Your task to perform on an android device: Open privacy settings Image 0: 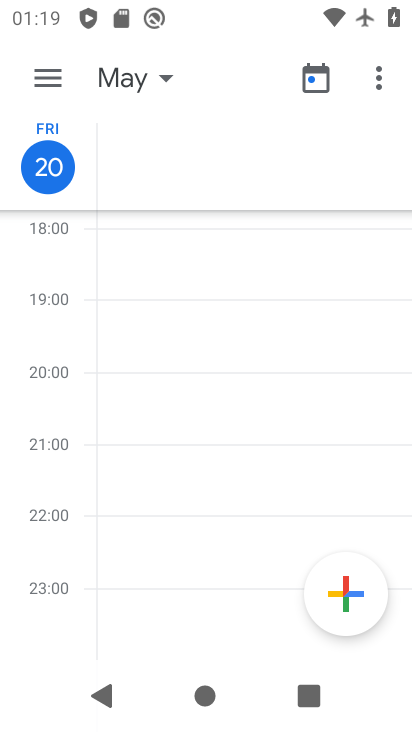
Step 0: press back button
Your task to perform on an android device: Open privacy settings Image 1: 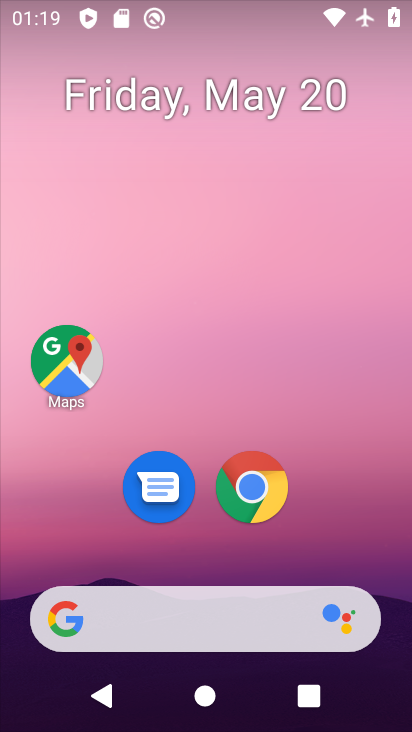
Step 1: drag from (336, 505) to (267, 2)
Your task to perform on an android device: Open privacy settings Image 2: 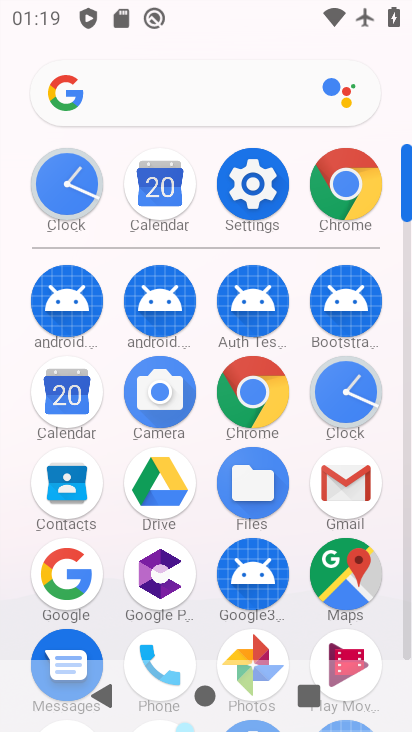
Step 2: drag from (1, 549) to (16, 203)
Your task to perform on an android device: Open privacy settings Image 3: 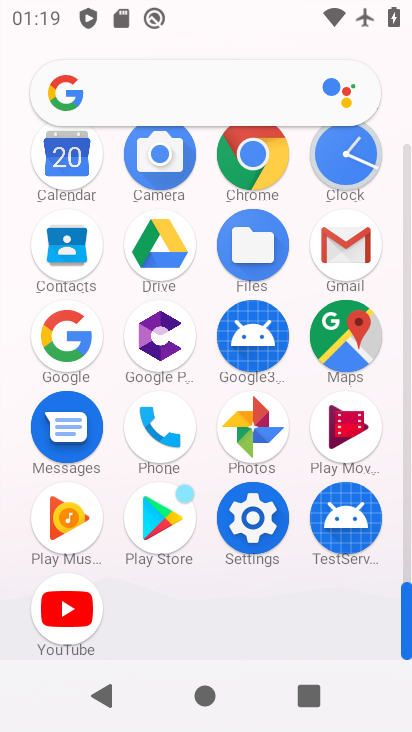
Step 3: click (246, 517)
Your task to perform on an android device: Open privacy settings Image 4: 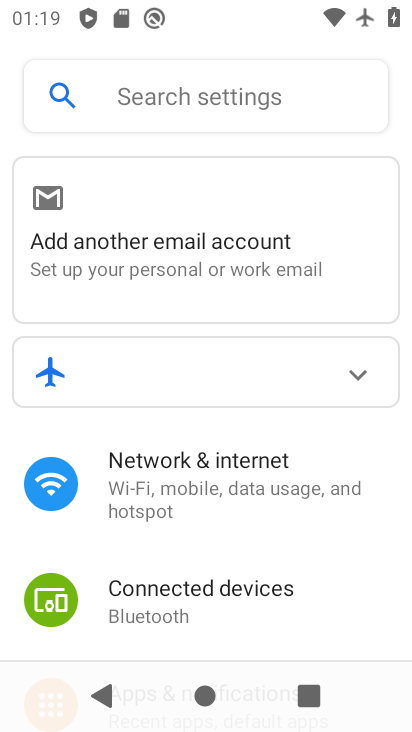
Step 4: drag from (346, 572) to (329, 165)
Your task to perform on an android device: Open privacy settings Image 5: 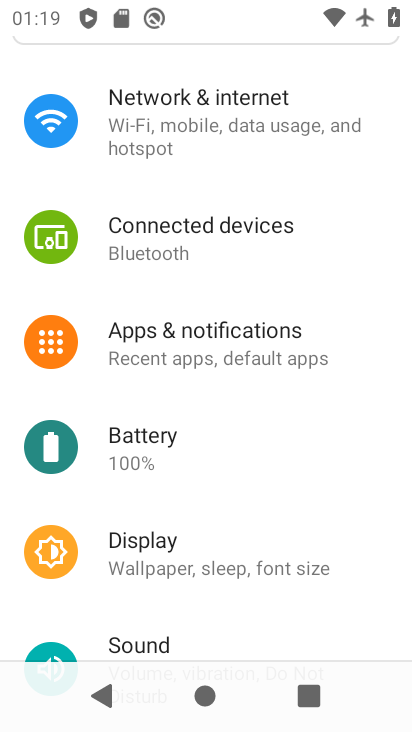
Step 5: press back button
Your task to perform on an android device: Open privacy settings Image 6: 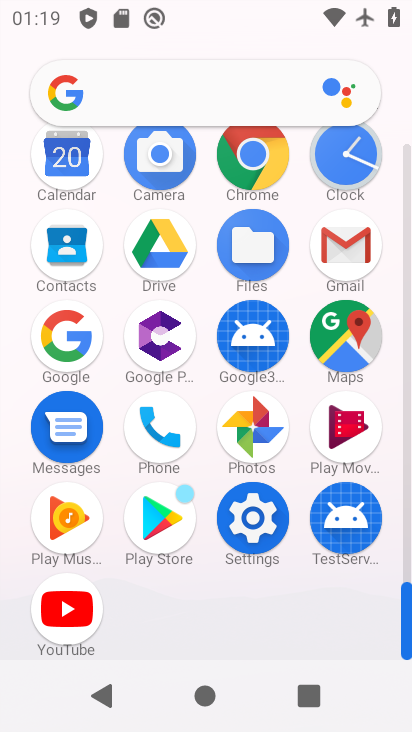
Step 6: click (247, 151)
Your task to perform on an android device: Open privacy settings Image 7: 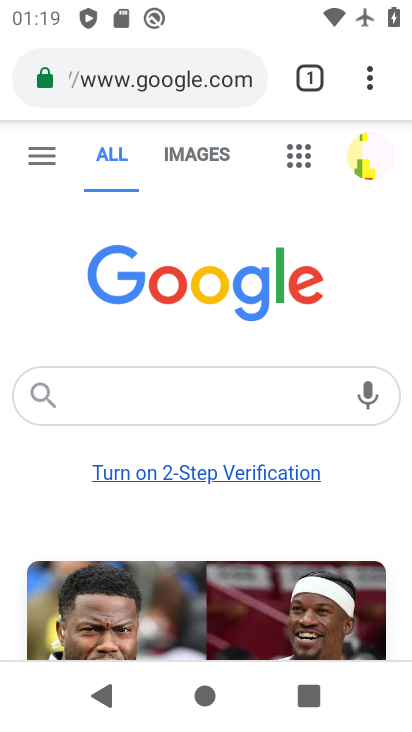
Step 7: drag from (366, 79) to (81, 548)
Your task to perform on an android device: Open privacy settings Image 8: 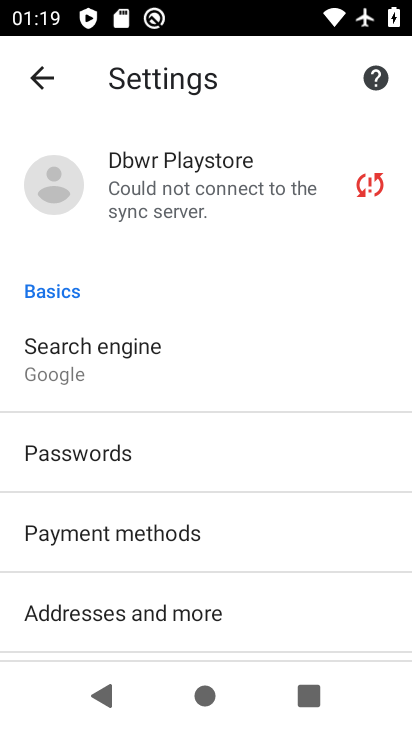
Step 8: drag from (268, 508) to (267, 185)
Your task to perform on an android device: Open privacy settings Image 9: 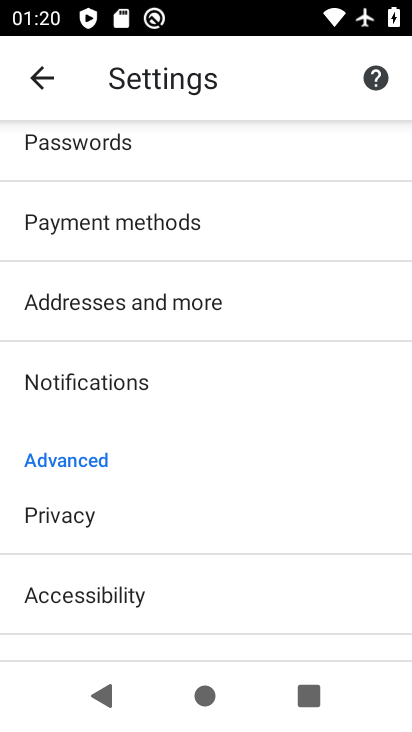
Step 9: drag from (213, 553) to (229, 140)
Your task to perform on an android device: Open privacy settings Image 10: 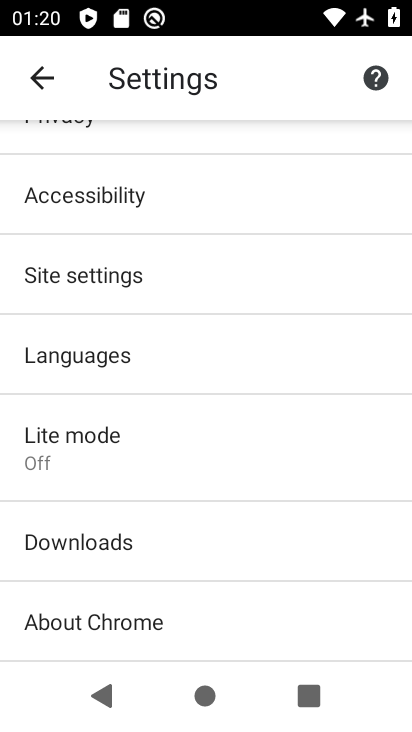
Step 10: drag from (261, 553) to (241, 177)
Your task to perform on an android device: Open privacy settings Image 11: 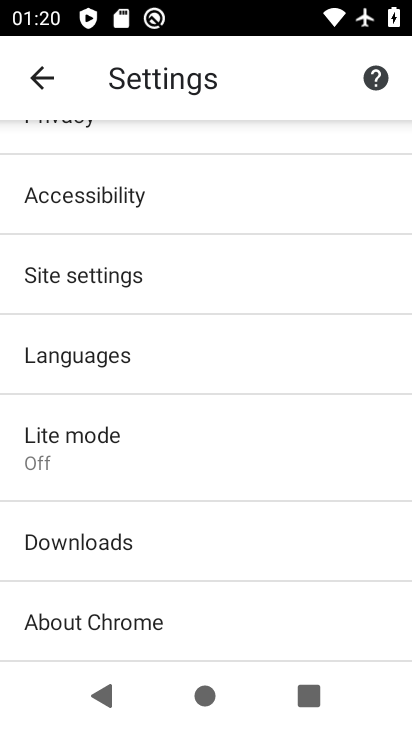
Step 11: click (113, 267)
Your task to perform on an android device: Open privacy settings Image 12: 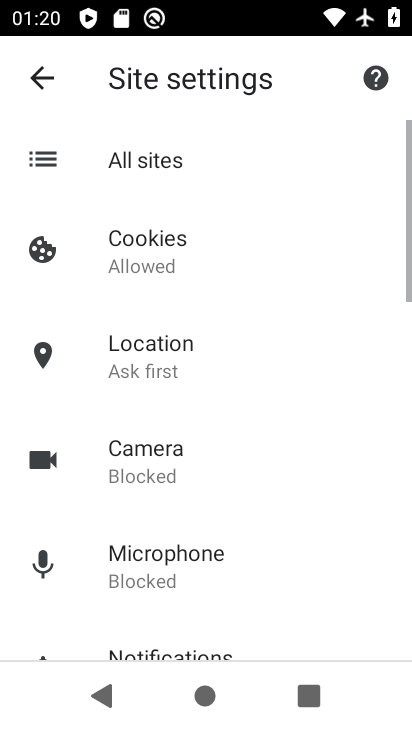
Step 12: drag from (264, 584) to (254, 197)
Your task to perform on an android device: Open privacy settings Image 13: 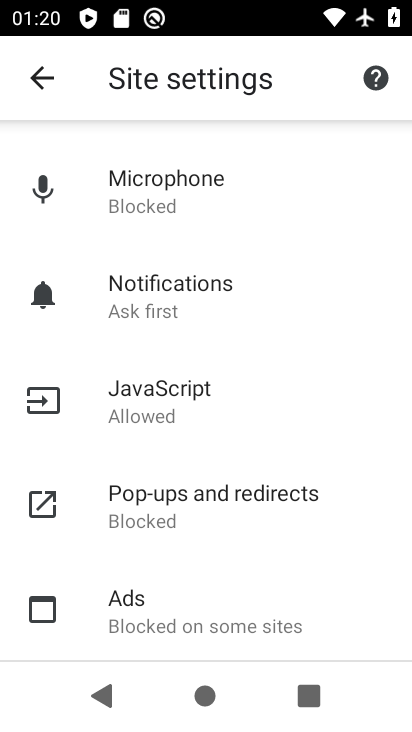
Step 13: drag from (249, 514) to (222, 163)
Your task to perform on an android device: Open privacy settings Image 14: 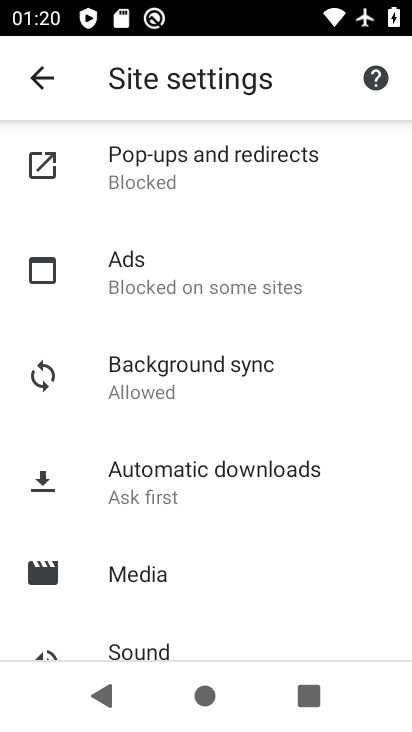
Step 14: drag from (215, 591) to (224, 155)
Your task to perform on an android device: Open privacy settings Image 15: 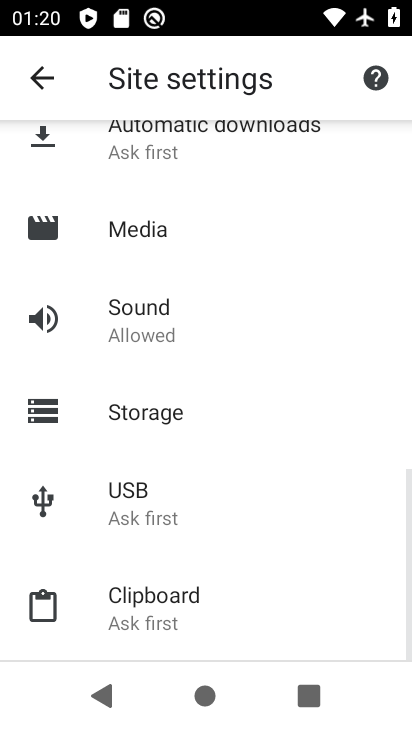
Step 15: click (50, 75)
Your task to perform on an android device: Open privacy settings Image 16: 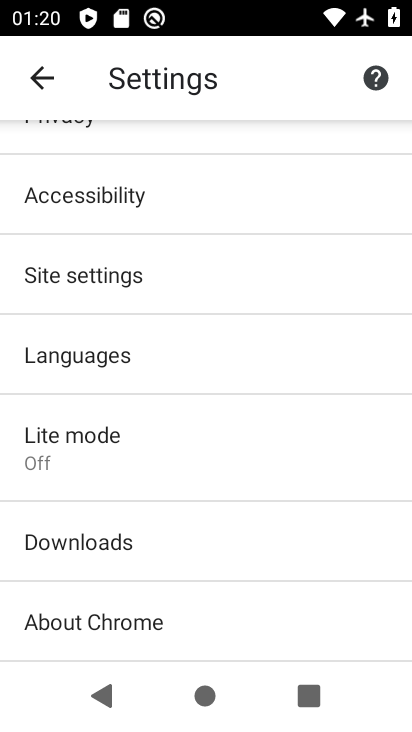
Step 16: drag from (219, 245) to (224, 623)
Your task to perform on an android device: Open privacy settings Image 17: 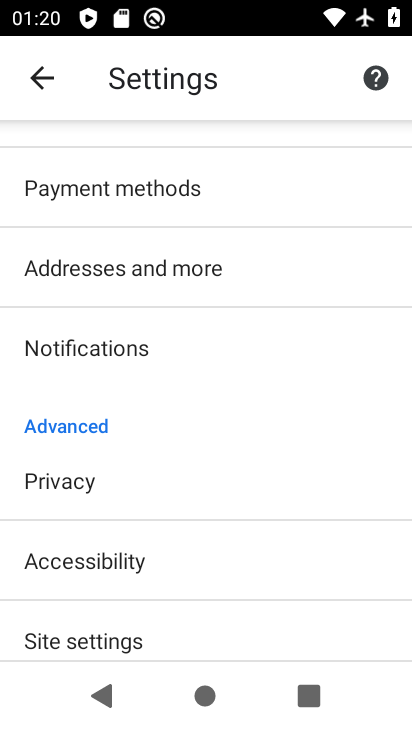
Step 17: click (113, 490)
Your task to perform on an android device: Open privacy settings Image 18: 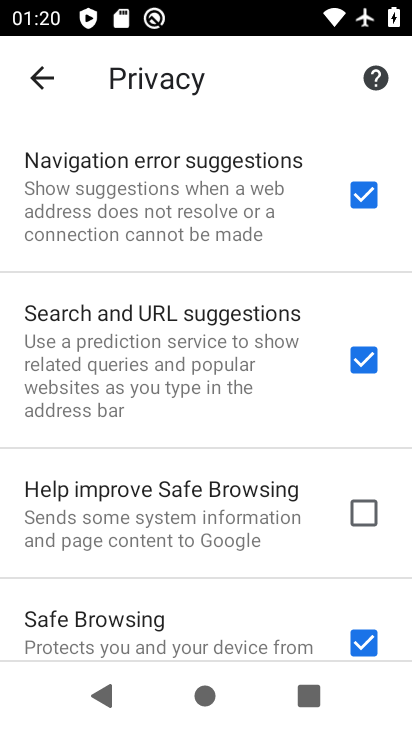
Step 18: task complete